Your task to perform on an android device: Show me recent news Image 0: 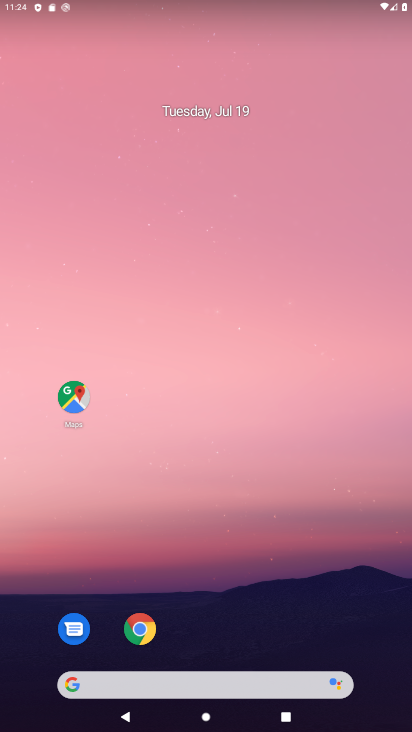
Step 0: drag from (317, 649) to (184, 74)
Your task to perform on an android device: Show me recent news Image 1: 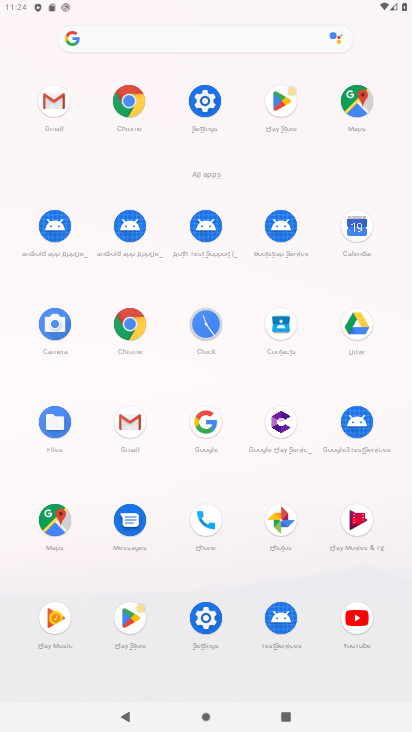
Step 1: click (128, 96)
Your task to perform on an android device: Show me recent news Image 2: 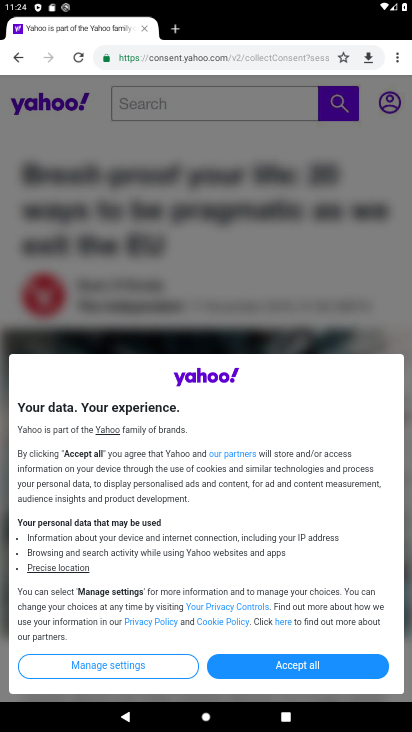
Step 2: task complete